Your task to perform on an android device: Go to display settings Image 0: 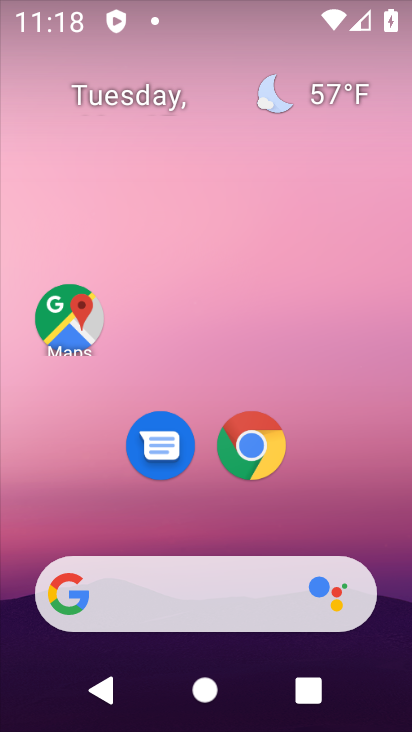
Step 0: drag from (383, 523) to (381, 103)
Your task to perform on an android device: Go to display settings Image 1: 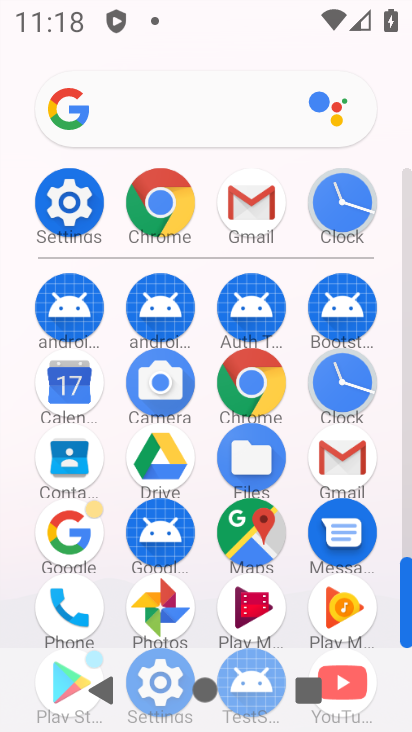
Step 1: click (76, 218)
Your task to perform on an android device: Go to display settings Image 2: 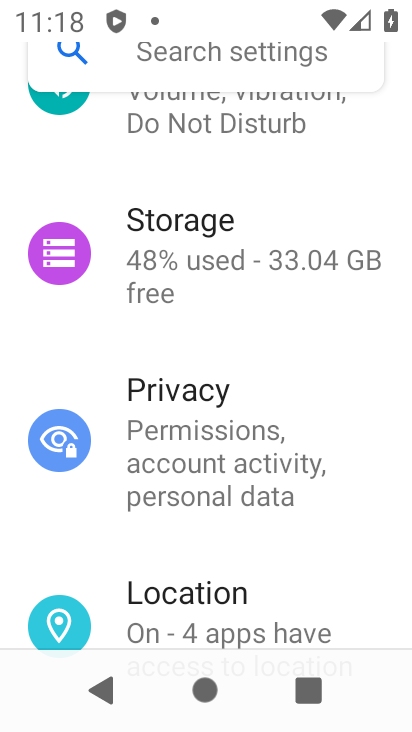
Step 2: drag from (320, 355) to (324, 426)
Your task to perform on an android device: Go to display settings Image 3: 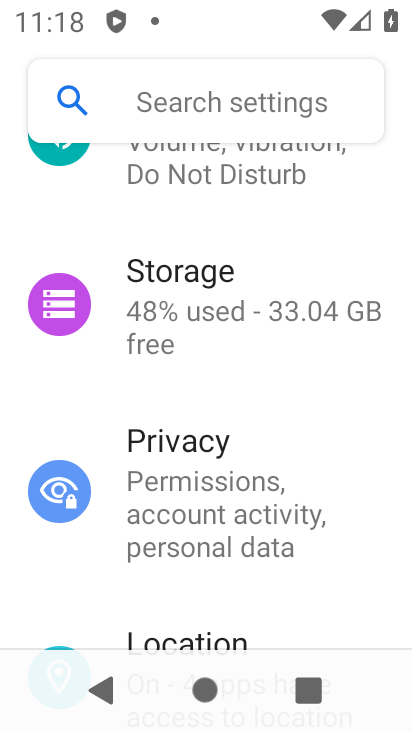
Step 3: drag from (333, 358) to (322, 447)
Your task to perform on an android device: Go to display settings Image 4: 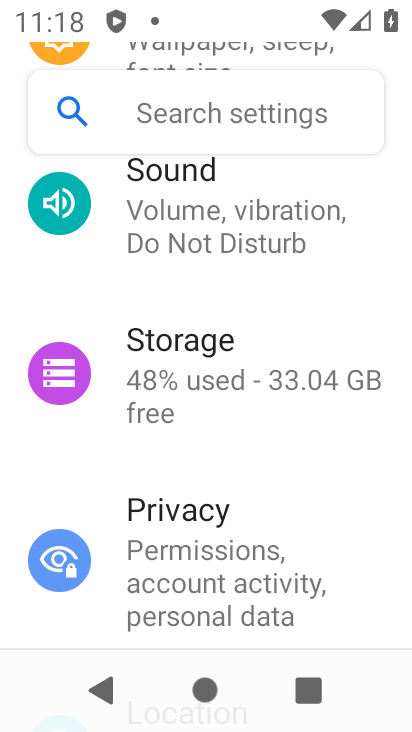
Step 4: drag from (339, 323) to (333, 411)
Your task to perform on an android device: Go to display settings Image 5: 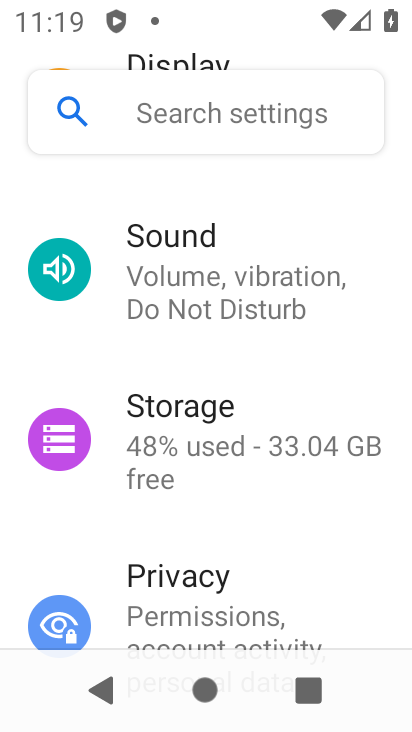
Step 5: drag from (337, 329) to (331, 400)
Your task to perform on an android device: Go to display settings Image 6: 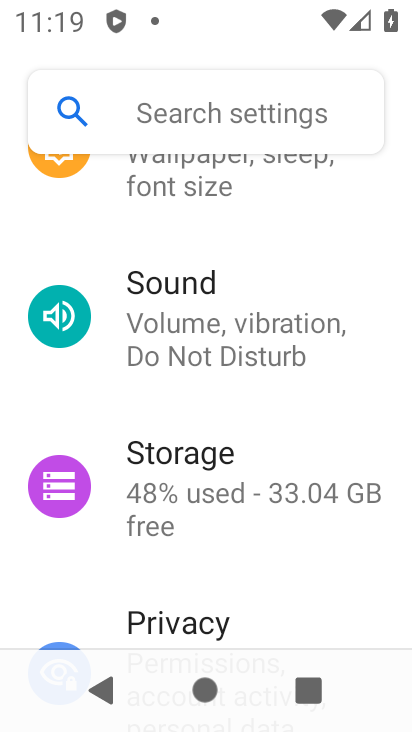
Step 6: drag from (351, 271) to (344, 374)
Your task to perform on an android device: Go to display settings Image 7: 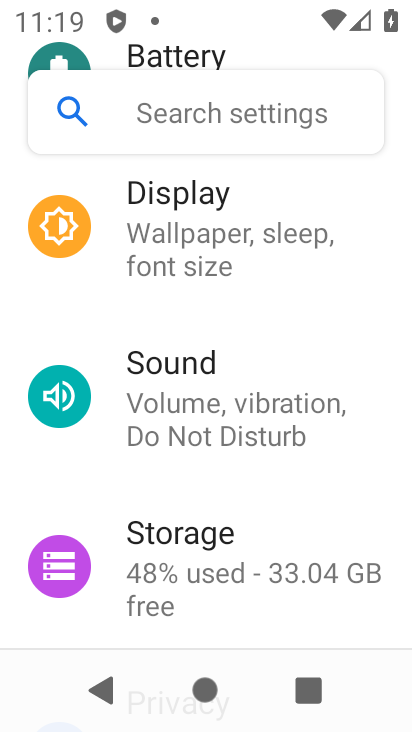
Step 7: drag from (348, 267) to (342, 351)
Your task to perform on an android device: Go to display settings Image 8: 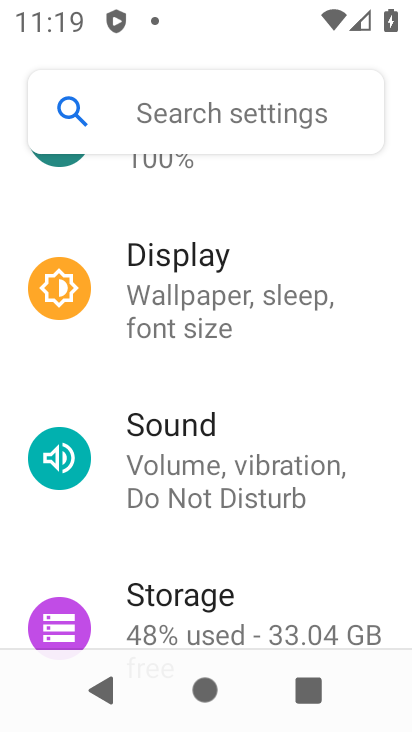
Step 8: drag from (347, 237) to (339, 336)
Your task to perform on an android device: Go to display settings Image 9: 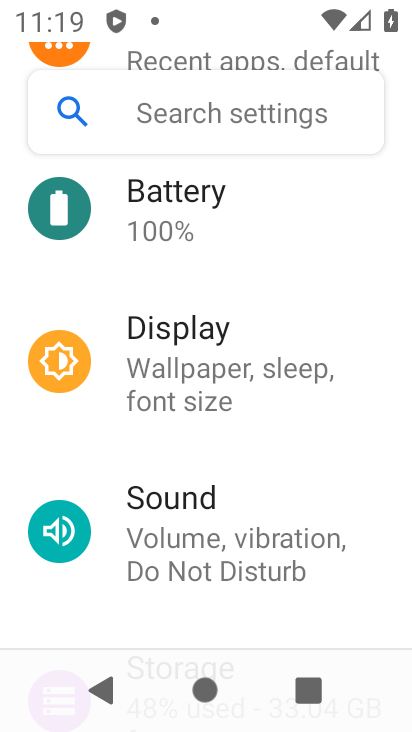
Step 9: click (290, 383)
Your task to perform on an android device: Go to display settings Image 10: 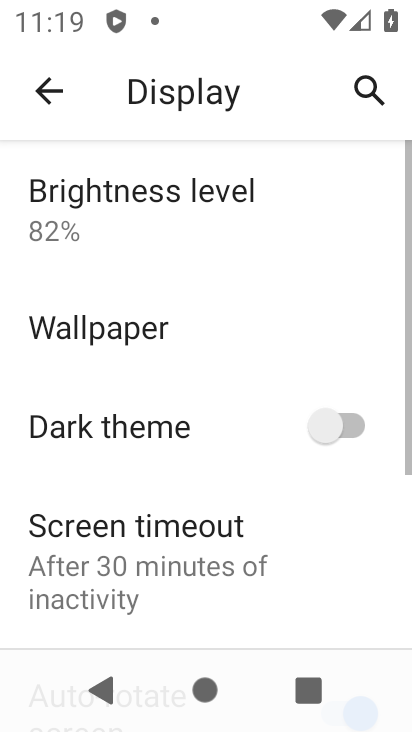
Step 10: drag from (262, 448) to (266, 310)
Your task to perform on an android device: Go to display settings Image 11: 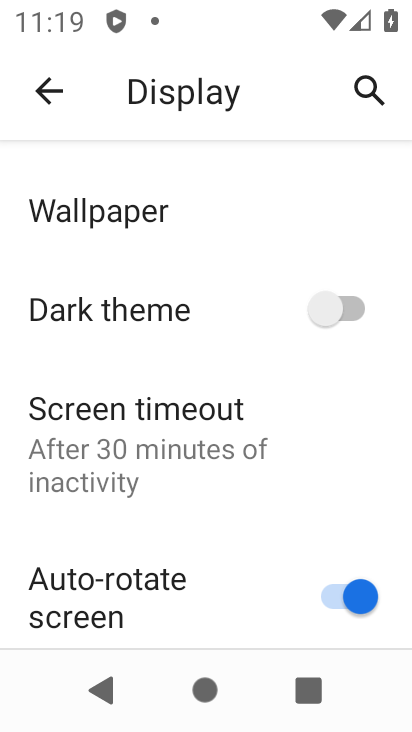
Step 11: drag from (258, 496) to (267, 343)
Your task to perform on an android device: Go to display settings Image 12: 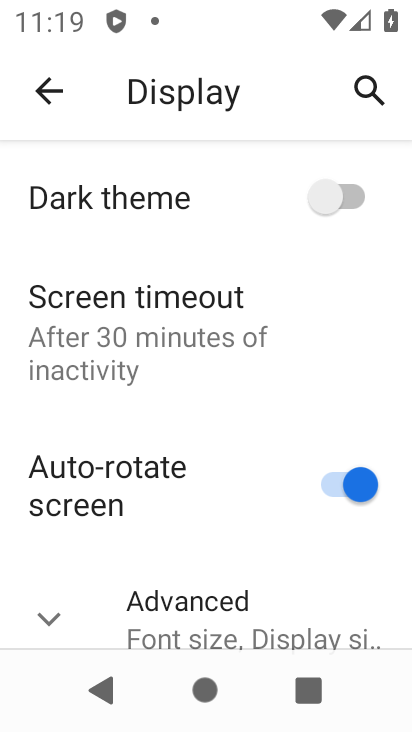
Step 12: drag from (247, 493) to (254, 391)
Your task to perform on an android device: Go to display settings Image 13: 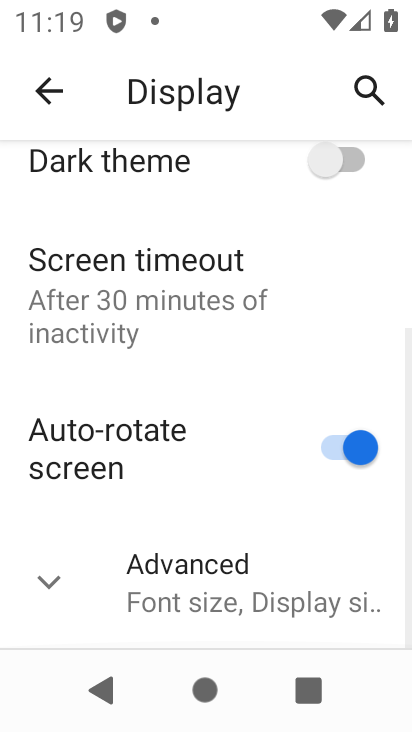
Step 13: click (239, 576)
Your task to perform on an android device: Go to display settings Image 14: 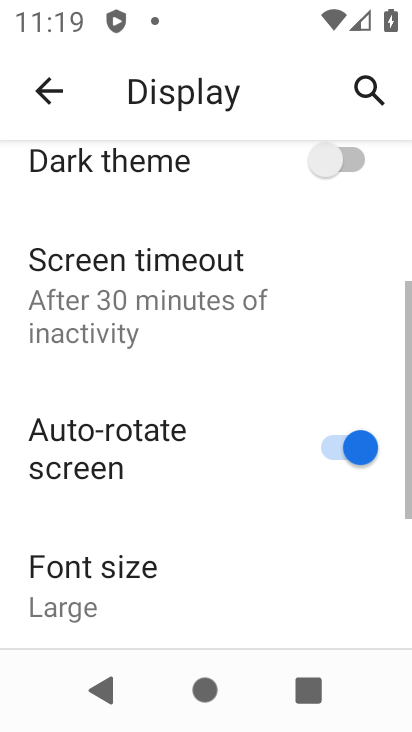
Step 14: task complete